Your task to perform on an android device: Open Google Maps Image 0: 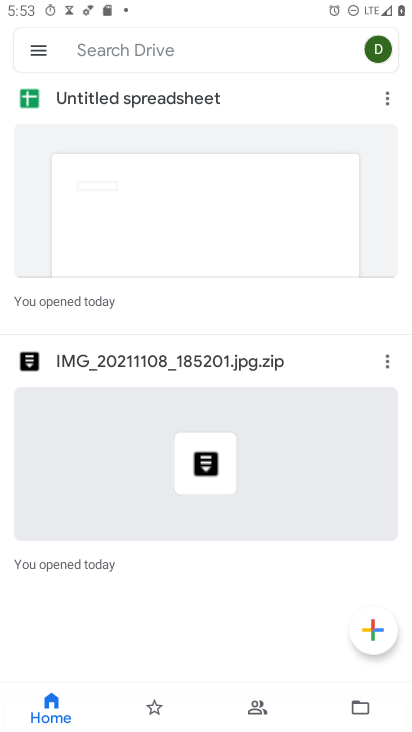
Step 0: press home button
Your task to perform on an android device: Open Google Maps Image 1: 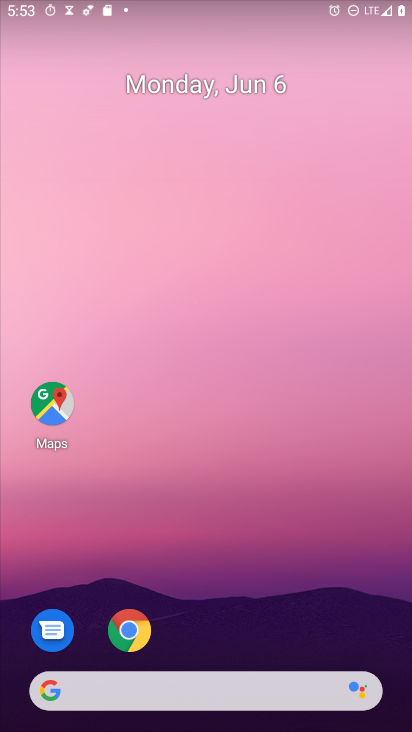
Step 1: click (51, 401)
Your task to perform on an android device: Open Google Maps Image 2: 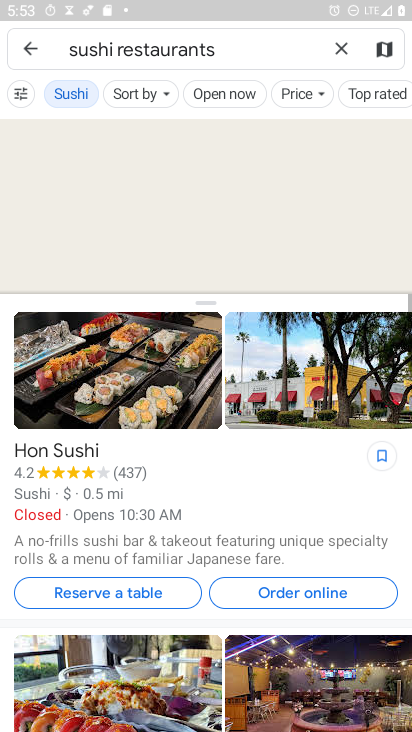
Step 2: task complete